Your task to perform on an android device: Show me popular games on the Play Store Image 0: 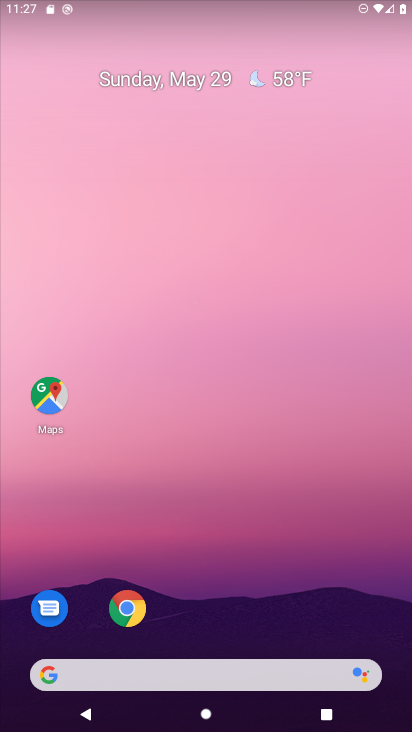
Step 0: drag from (175, 565) to (211, 217)
Your task to perform on an android device: Show me popular games on the Play Store Image 1: 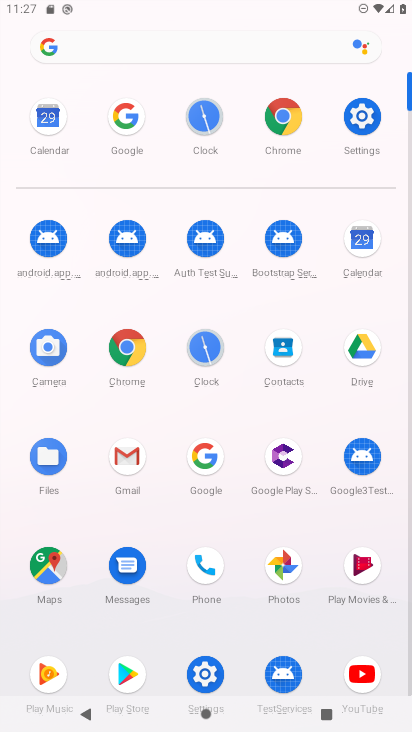
Step 1: click (121, 682)
Your task to perform on an android device: Show me popular games on the Play Store Image 2: 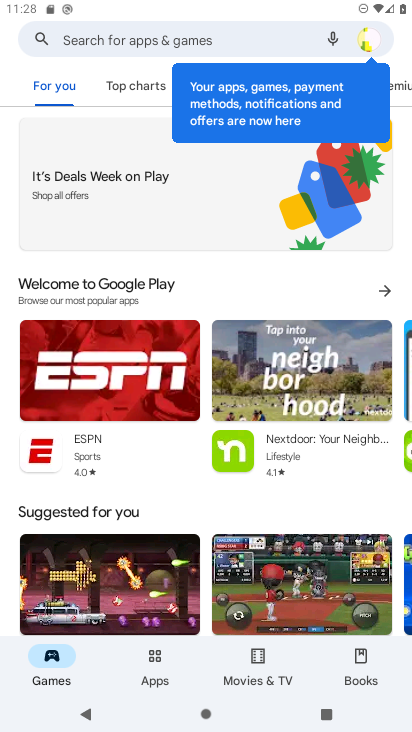
Step 2: click (80, 40)
Your task to perform on an android device: Show me popular games on the Play Store Image 3: 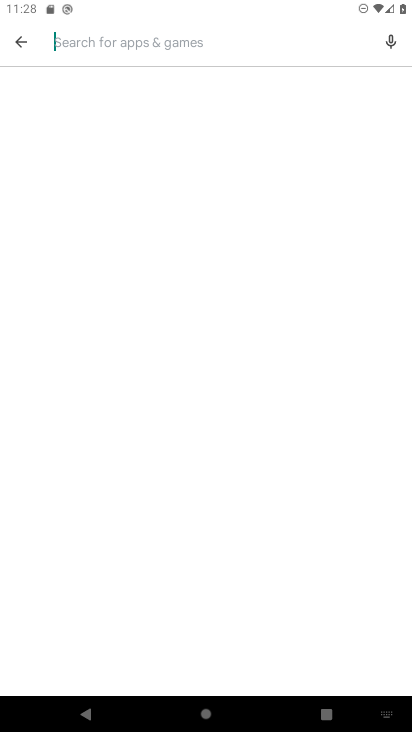
Step 3: type "popular games"
Your task to perform on an android device: Show me popular games on the Play Store Image 4: 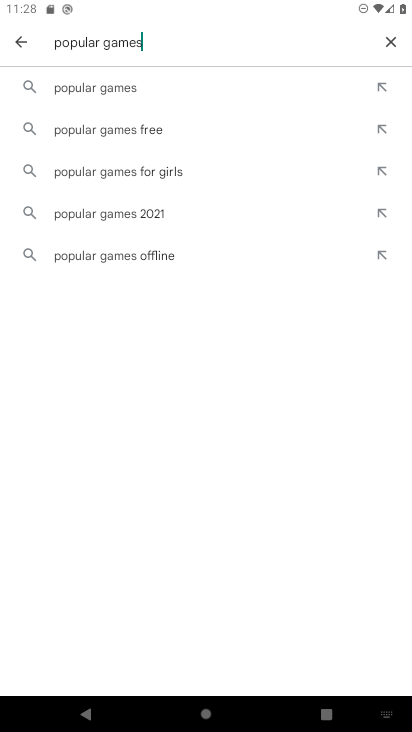
Step 4: click (142, 84)
Your task to perform on an android device: Show me popular games on the Play Store Image 5: 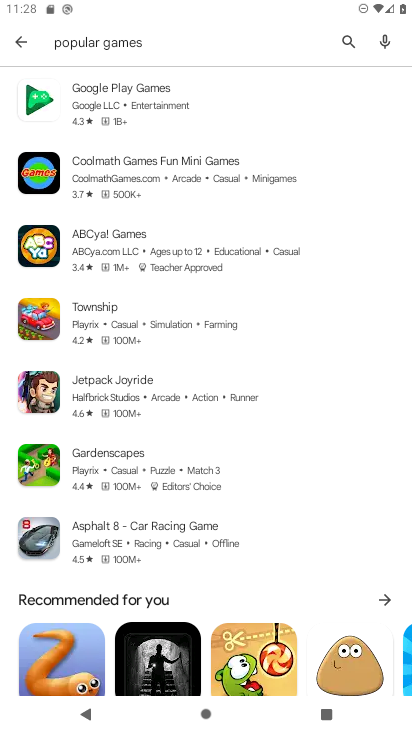
Step 5: task complete